Your task to perform on an android device: Open CNN.com Image 0: 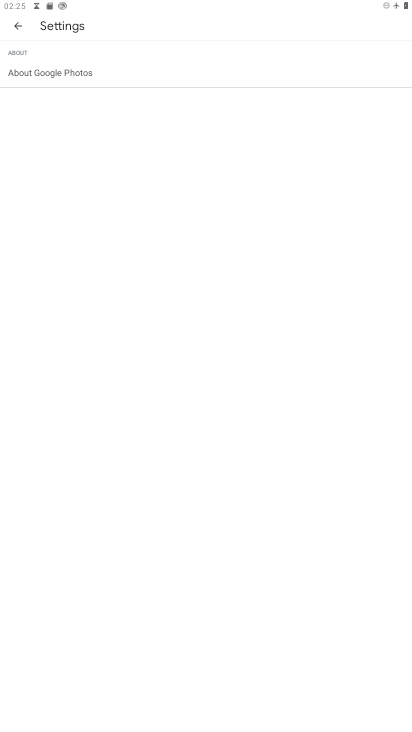
Step 0: press home button
Your task to perform on an android device: Open CNN.com Image 1: 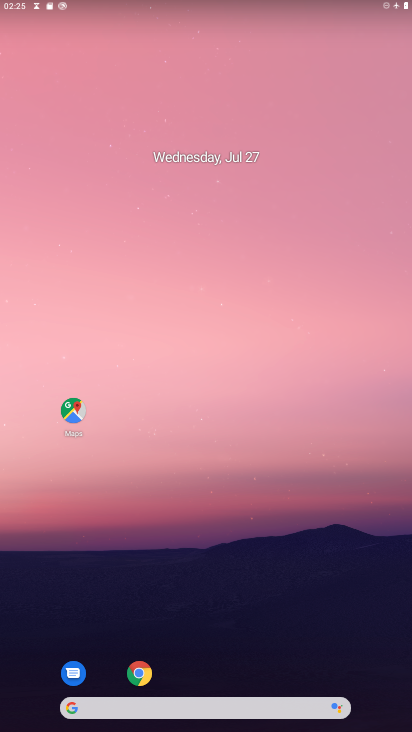
Step 1: click (142, 681)
Your task to perform on an android device: Open CNN.com Image 2: 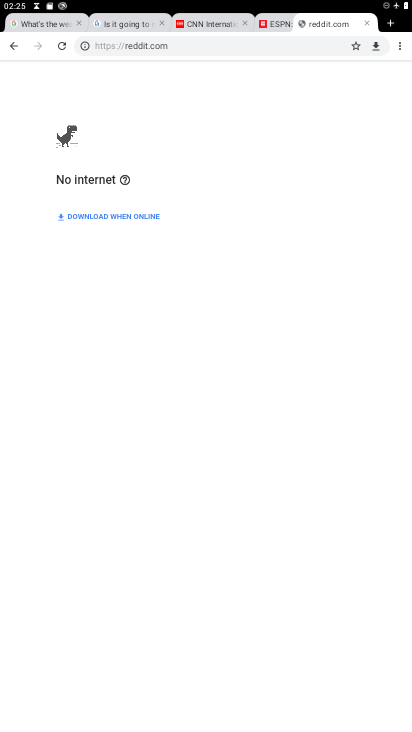
Step 2: click (387, 18)
Your task to perform on an android device: Open CNN.com Image 3: 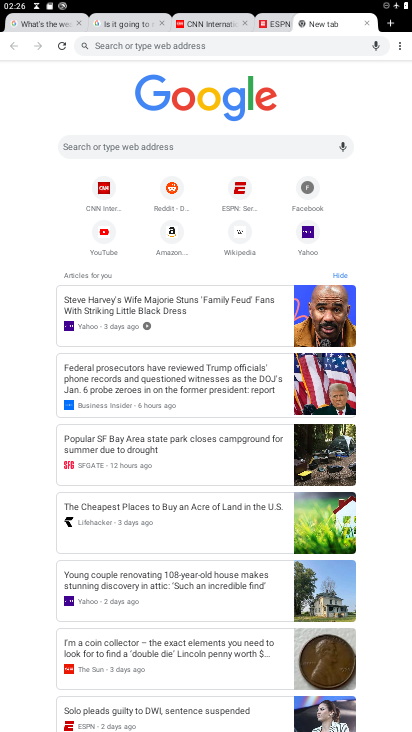
Step 3: click (90, 187)
Your task to perform on an android device: Open CNN.com Image 4: 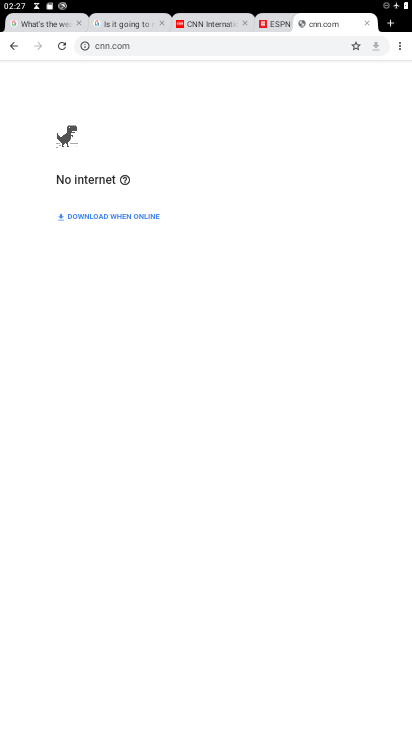
Step 4: task complete